Your task to perform on an android device: delete the emails in spam in the gmail app Image 0: 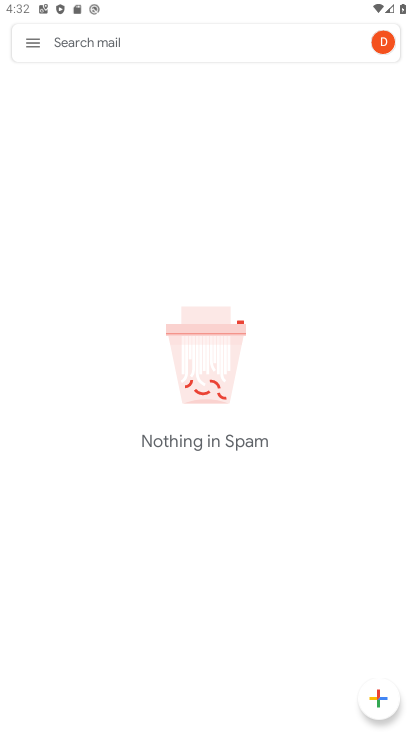
Step 0: click (30, 43)
Your task to perform on an android device: delete the emails in spam in the gmail app Image 1: 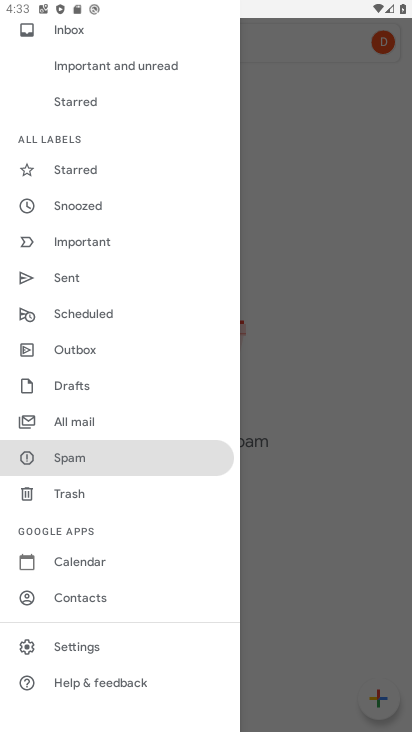
Step 1: click (134, 454)
Your task to perform on an android device: delete the emails in spam in the gmail app Image 2: 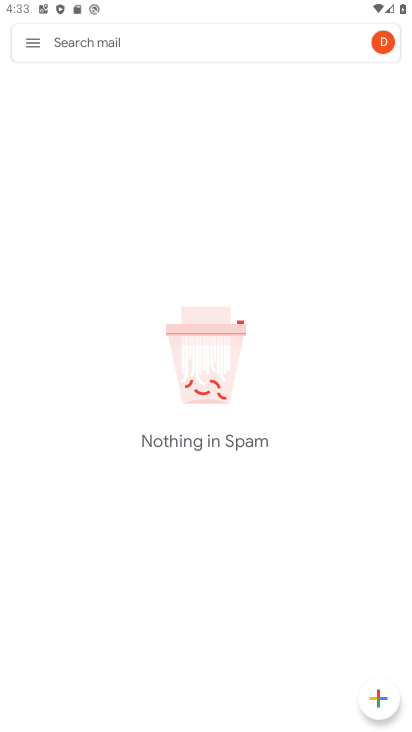
Step 2: task complete